Your task to perform on an android device: Go to calendar. Show me events next week Image 0: 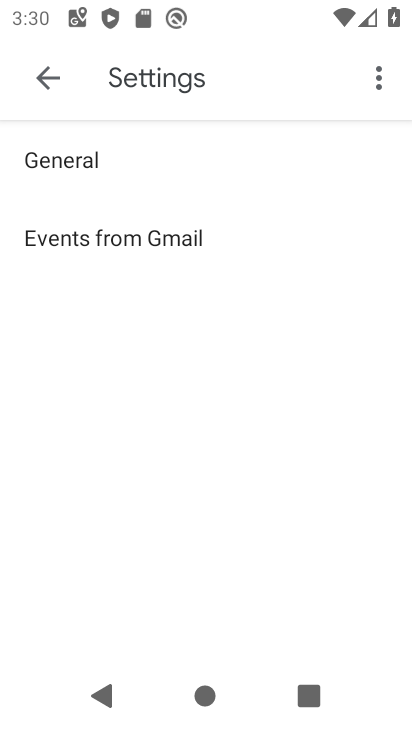
Step 0: drag from (260, 596) to (319, 119)
Your task to perform on an android device: Go to calendar. Show me events next week Image 1: 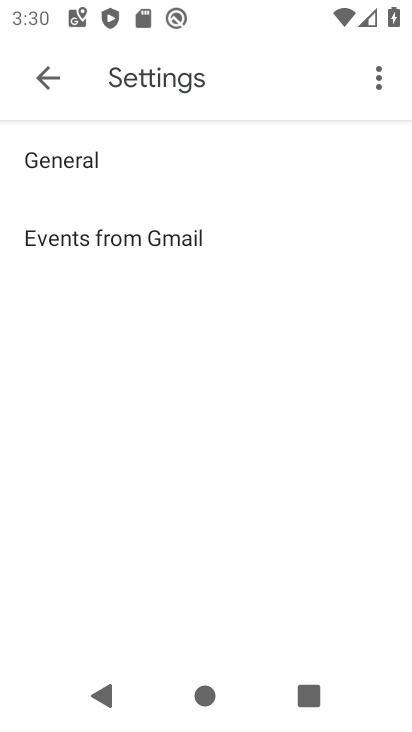
Step 1: press home button
Your task to perform on an android device: Go to calendar. Show me events next week Image 2: 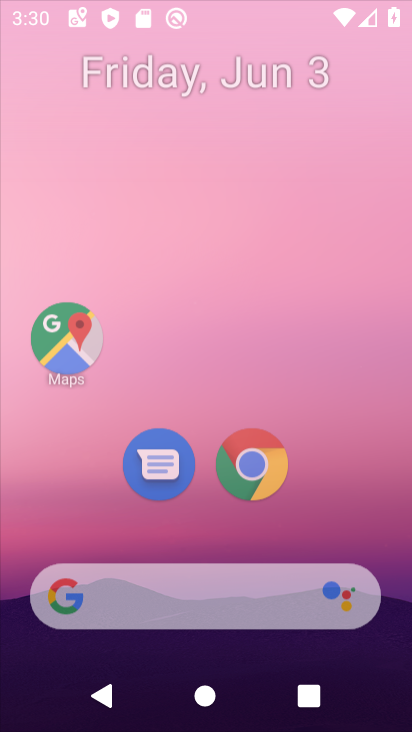
Step 2: drag from (306, 515) to (398, 0)
Your task to perform on an android device: Go to calendar. Show me events next week Image 3: 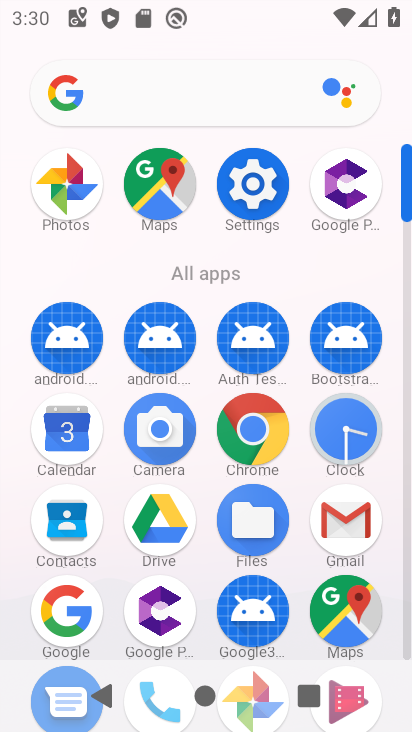
Step 3: drag from (213, 470) to (253, 180)
Your task to perform on an android device: Go to calendar. Show me events next week Image 4: 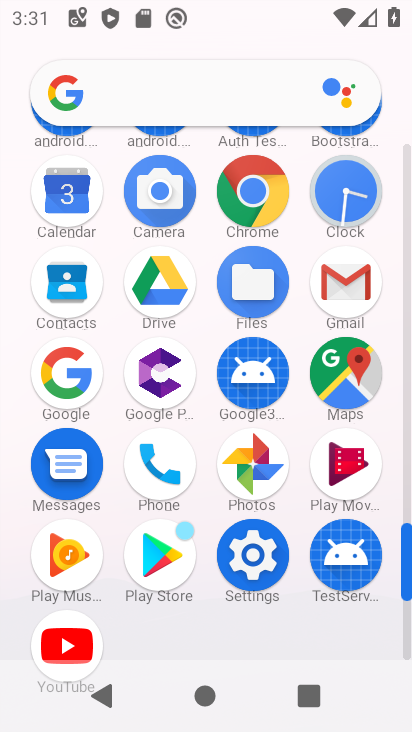
Step 4: click (73, 211)
Your task to perform on an android device: Go to calendar. Show me events next week Image 5: 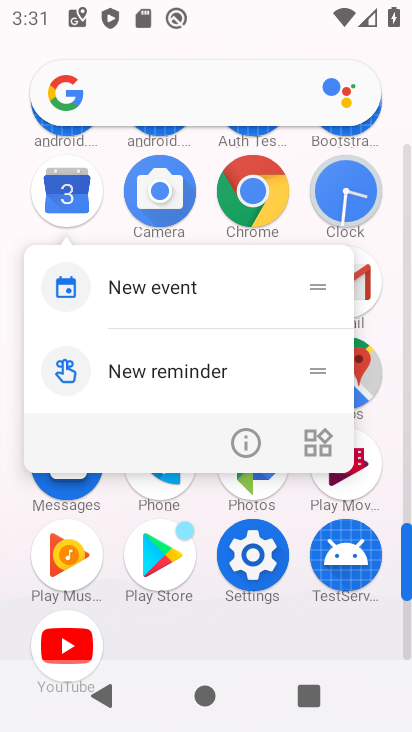
Step 5: click (232, 431)
Your task to perform on an android device: Go to calendar. Show me events next week Image 6: 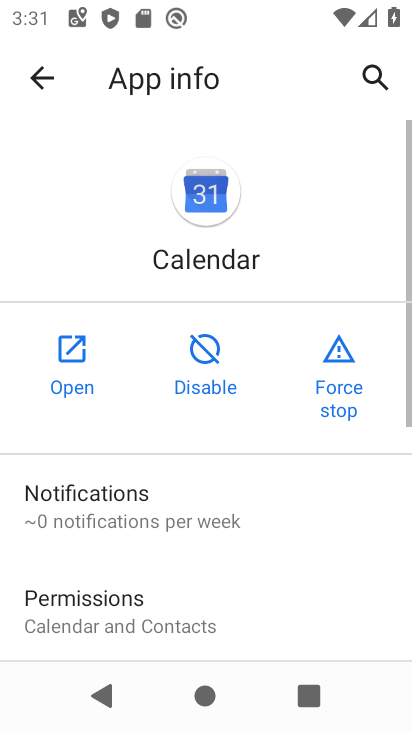
Step 6: click (69, 346)
Your task to perform on an android device: Go to calendar. Show me events next week Image 7: 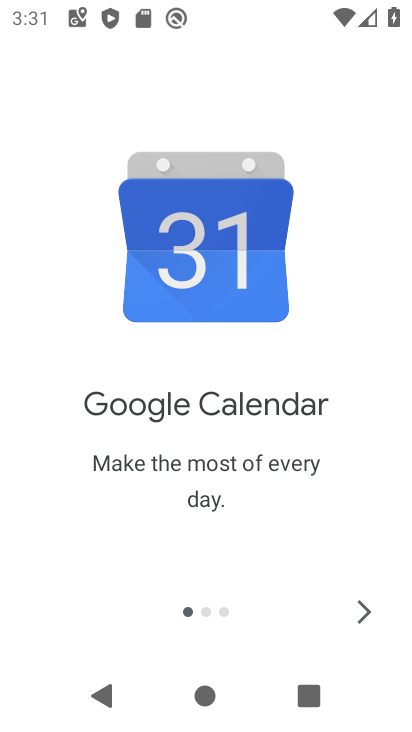
Step 7: click (355, 602)
Your task to perform on an android device: Go to calendar. Show me events next week Image 8: 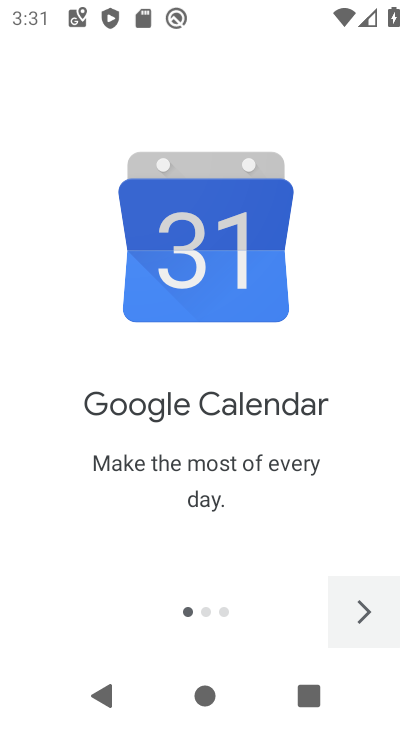
Step 8: click (350, 597)
Your task to perform on an android device: Go to calendar. Show me events next week Image 9: 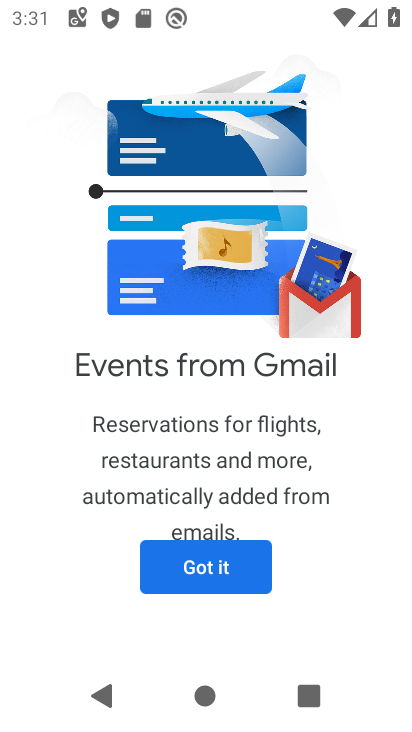
Step 9: click (347, 593)
Your task to perform on an android device: Go to calendar. Show me events next week Image 10: 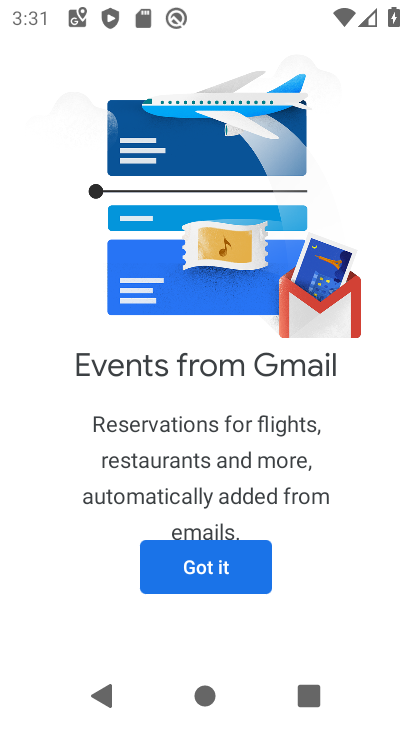
Step 10: click (238, 561)
Your task to perform on an android device: Go to calendar. Show me events next week Image 11: 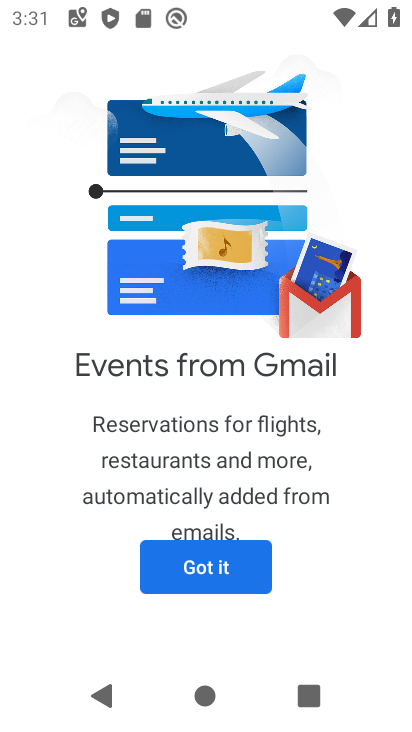
Step 11: drag from (234, 523) to (286, 13)
Your task to perform on an android device: Go to calendar. Show me events next week Image 12: 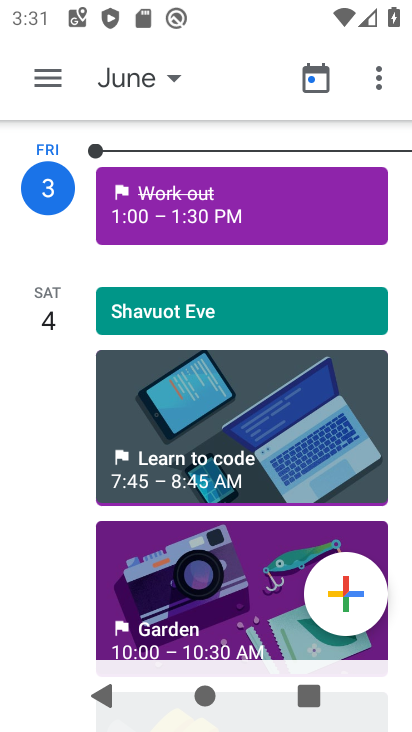
Step 12: click (139, 75)
Your task to perform on an android device: Go to calendar. Show me events next week Image 13: 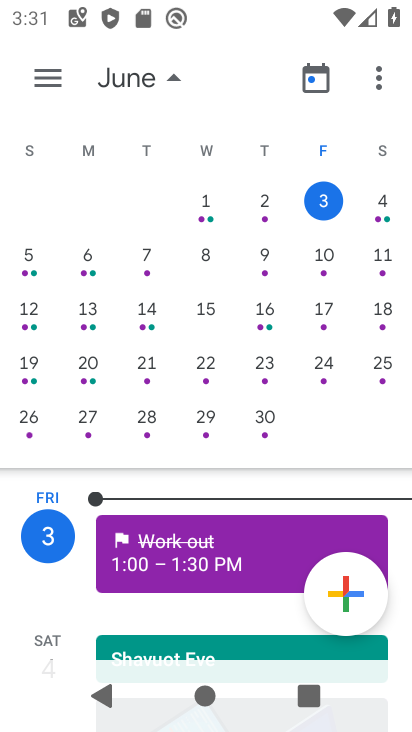
Step 13: click (329, 265)
Your task to perform on an android device: Go to calendar. Show me events next week Image 14: 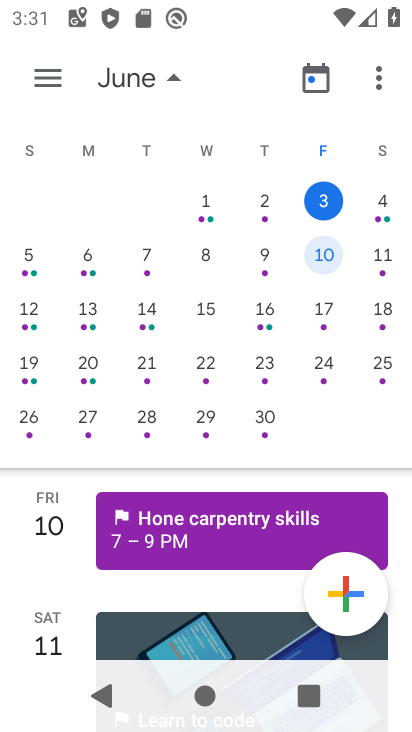
Step 14: task complete